Your task to perform on an android device: turn off notifications settings in the gmail app Image 0: 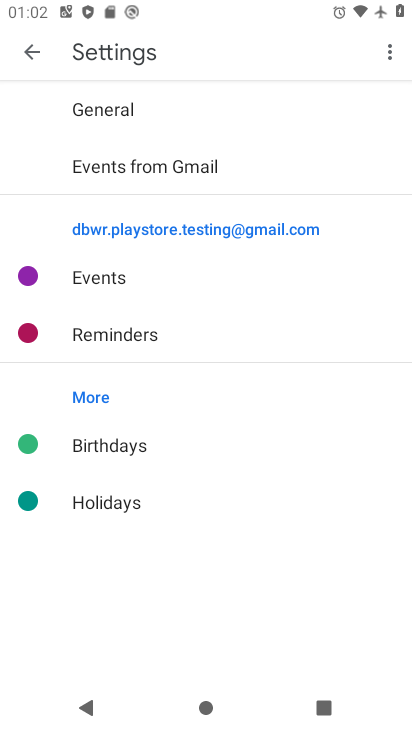
Step 0: press home button
Your task to perform on an android device: turn off notifications settings in the gmail app Image 1: 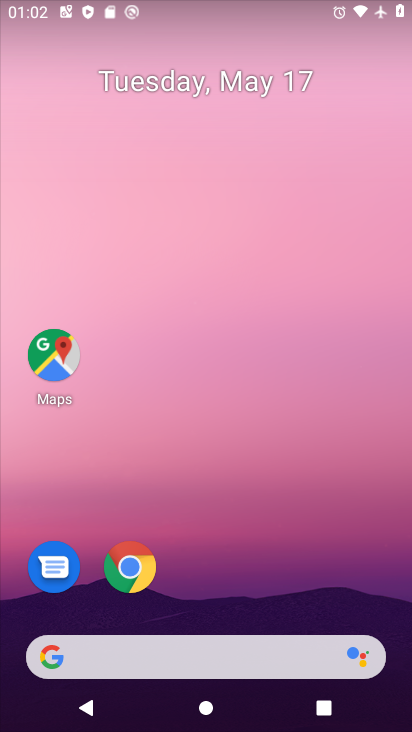
Step 1: drag from (284, 552) to (220, 222)
Your task to perform on an android device: turn off notifications settings in the gmail app Image 2: 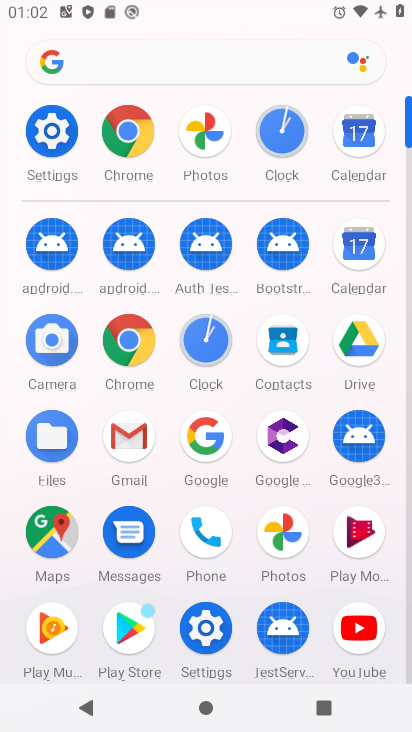
Step 2: click (124, 432)
Your task to perform on an android device: turn off notifications settings in the gmail app Image 3: 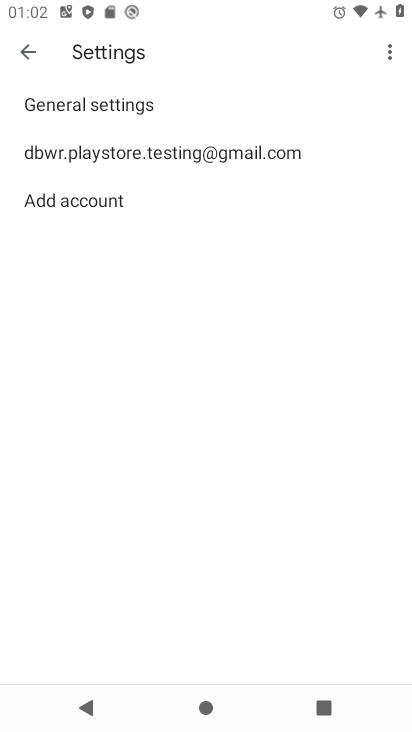
Step 3: click (98, 102)
Your task to perform on an android device: turn off notifications settings in the gmail app Image 4: 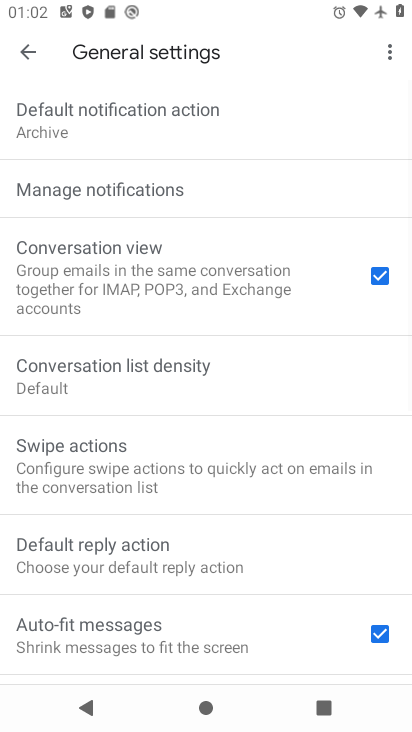
Step 4: click (118, 184)
Your task to perform on an android device: turn off notifications settings in the gmail app Image 5: 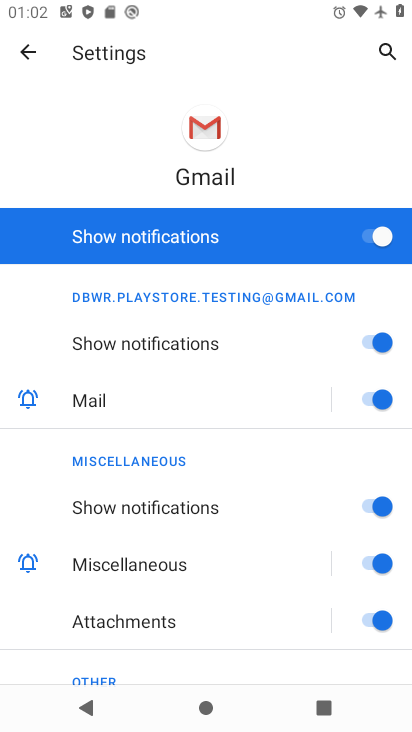
Step 5: click (388, 235)
Your task to perform on an android device: turn off notifications settings in the gmail app Image 6: 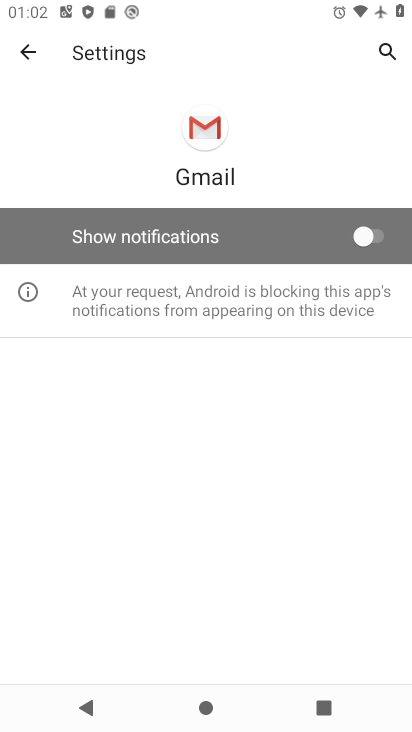
Step 6: task complete